Your task to perform on an android device: open a new tab in the chrome app Image 0: 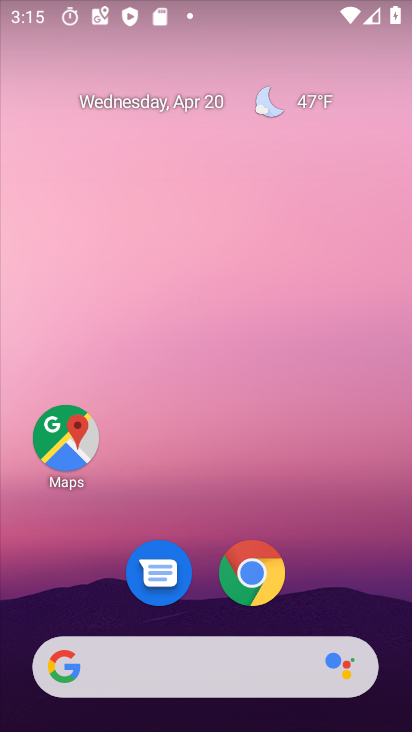
Step 0: click (251, 575)
Your task to perform on an android device: open a new tab in the chrome app Image 1: 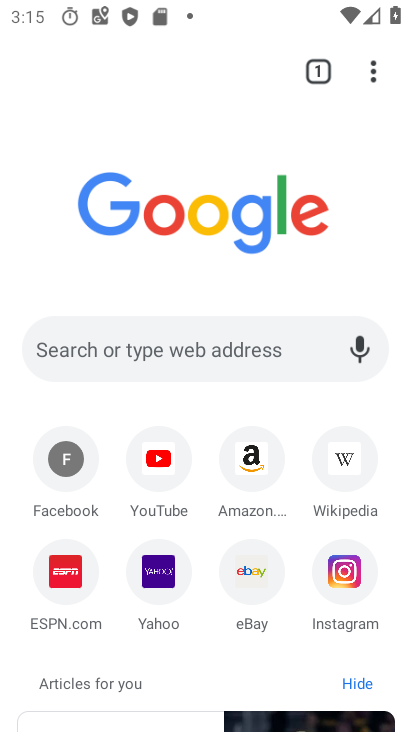
Step 1: click (373, 76)
Your task to perform on an android device: open a new tab in the chrome app Image 2: 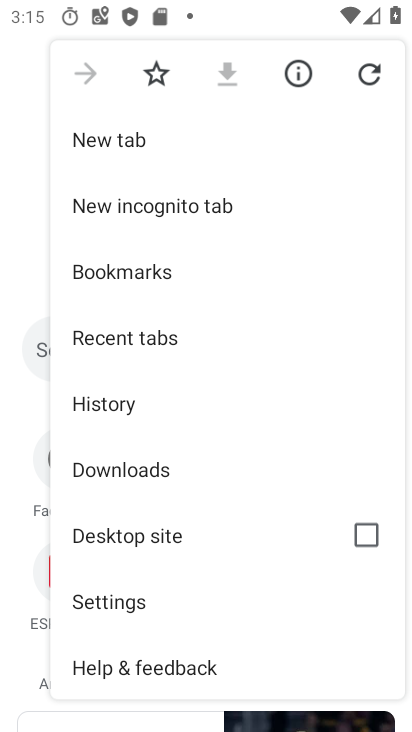
Step 2: click (109, 140)
Your task to perform on an android device: open a new tab in the chrome app Image 3: 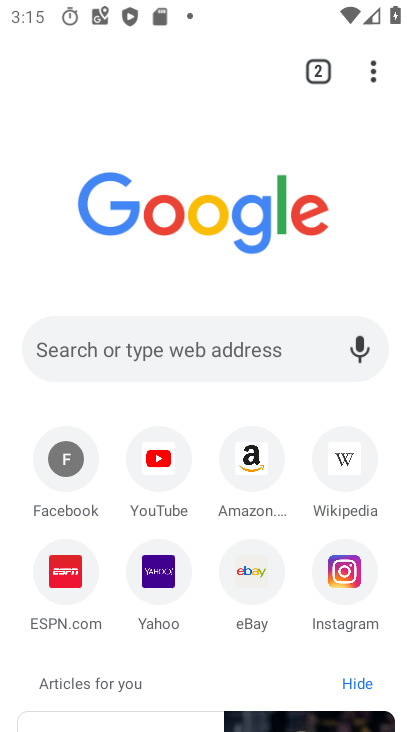
Step 3: task complete